Your task to perform on an android device: Search for vegetarian restaurants on Maps Image 0: 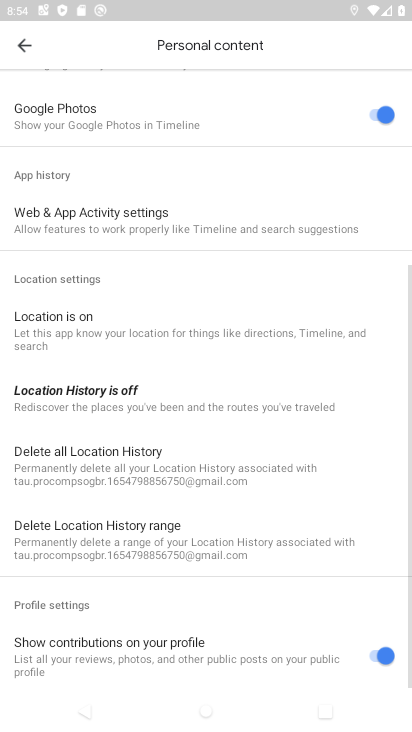
Step 0: press home button
Your task to perform on an android device: Search for vegetarian restaurants on Maps Image 1: 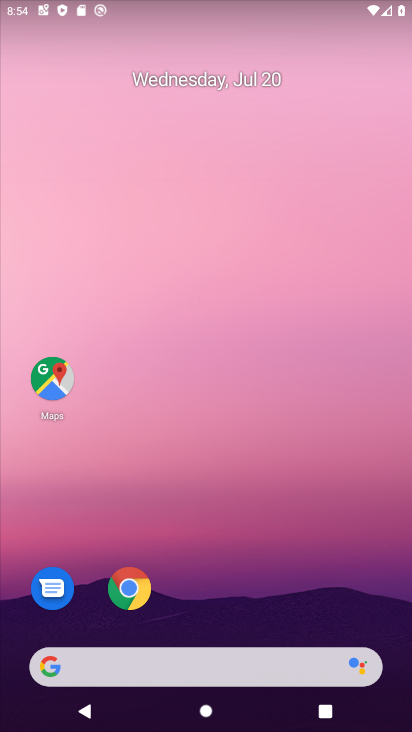
Step 1: click (65, 348)
Your task to perform on an android device: Search for vegetarian restaurants on Maps Image 2: 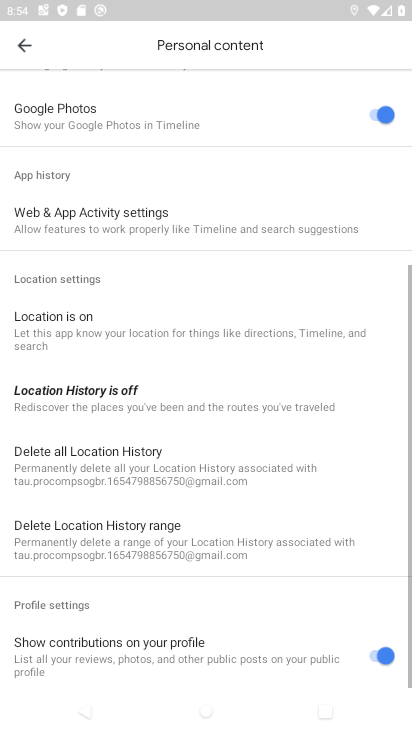
Step 2: click (28, 36)
Your task to perform on an android device: Search for vegetarian restaurants on Maps Image 3: 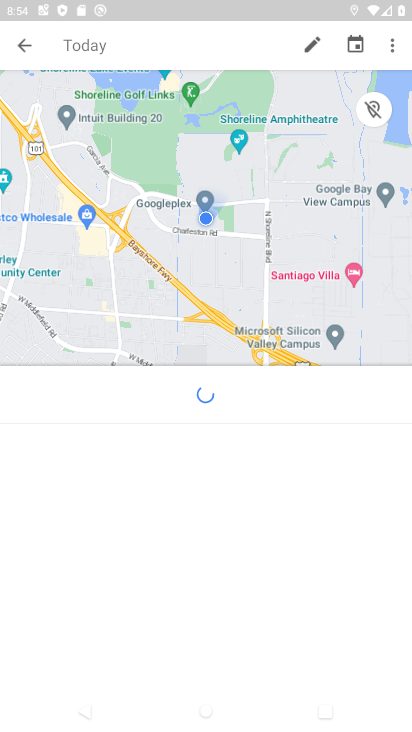
Step 3: click (28, 36)
Your task to perform on an android device: Search for vegetarian restaurants on Maps Image 4: 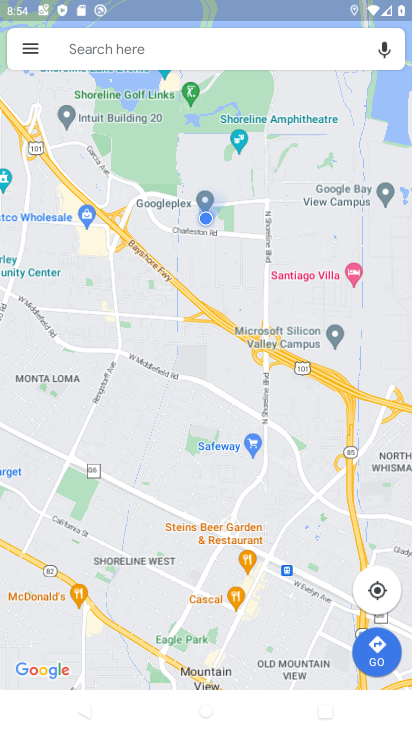
Step 4: click (154, 46)
Your task to perform on an android device: Search for vegetarian restaurants on Maps Image 5: 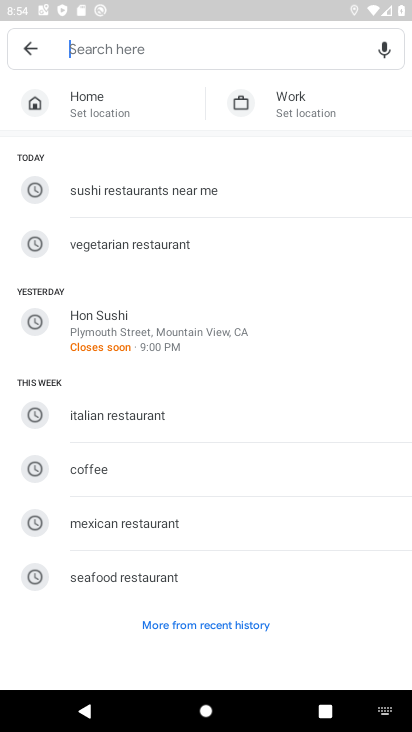
Step 5: click (196, 259)
Your task to perform on an android device: Search for vegetarian restaurants on Maps Image 6: 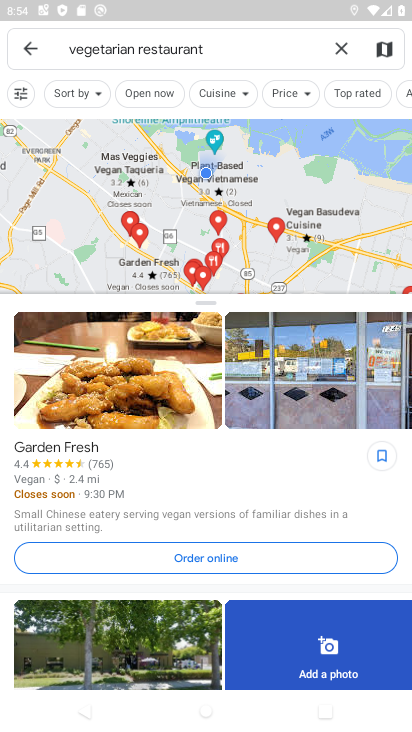
Step 6: task complete